Your task to perform on an android device: all mails in gmail Image 0: 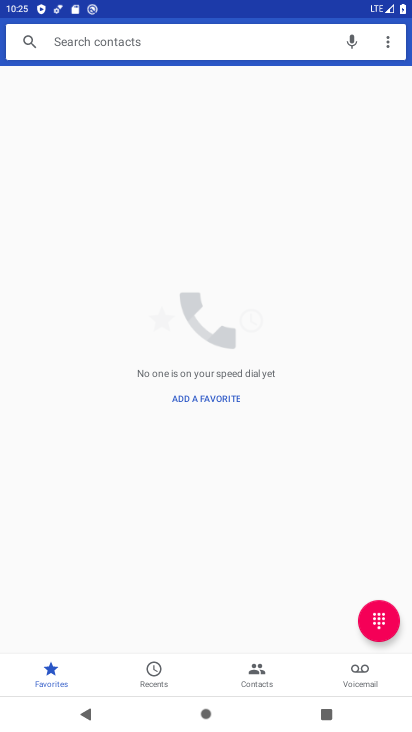
Step 0: press home button
Your task to perform on an android device: all mails in gmail Image 1: 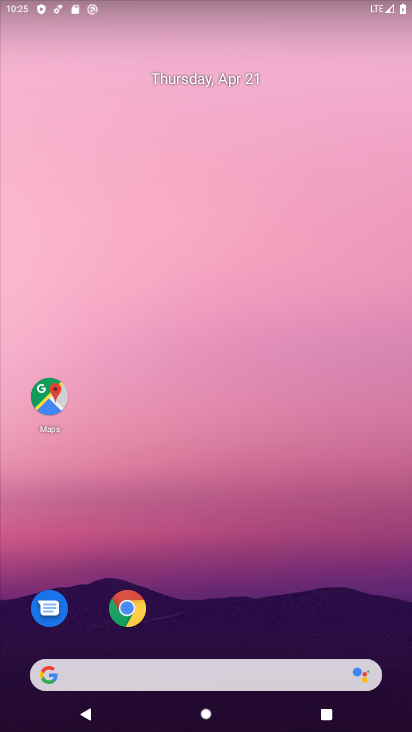
Step 1: drag from (232, 494) to (271, 158)
Your task to perform on an android device: all mails in gmail Image 2: 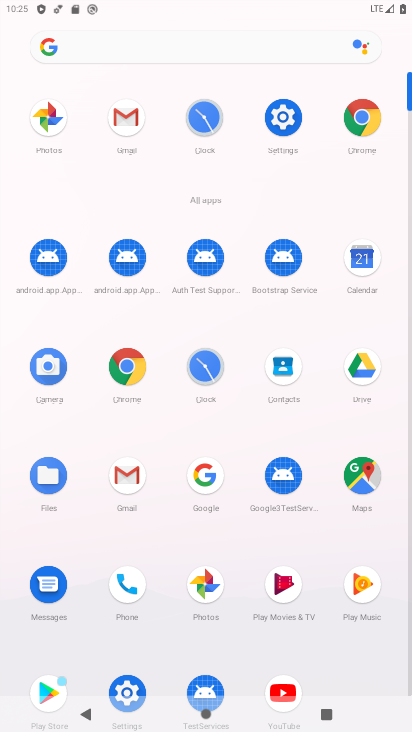
Step 2: click (131, 479)
Your task to perform on an android device: all mails in gmail Image 3: 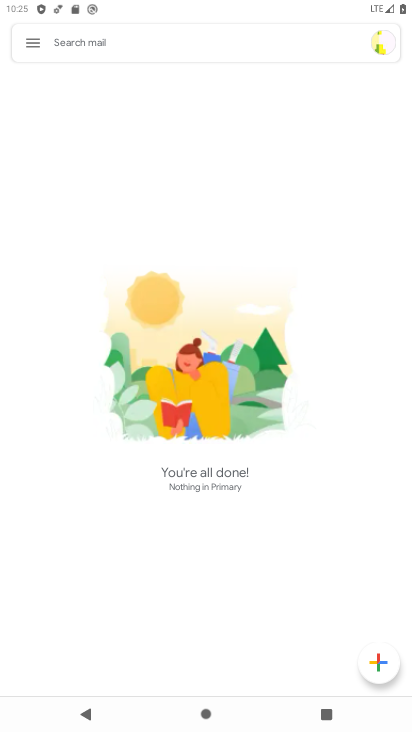
Step 3: click (34, 42)
Your task to perform on an android device: all mails in gmail Image 4: 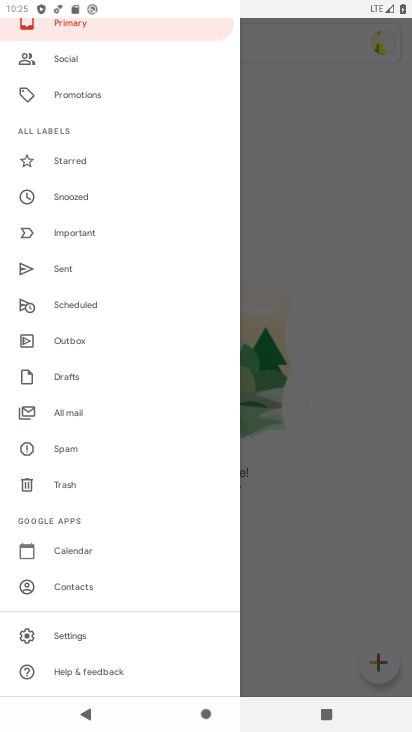
Step 4: click (61, 413)
Your task to perform on an android device: all mails in gmail Image 5: 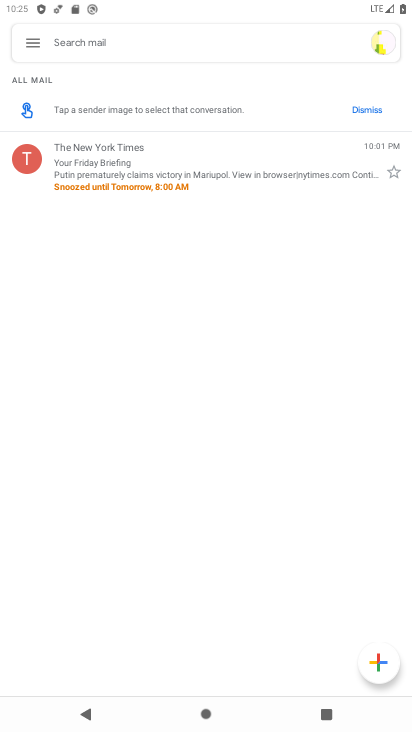
Step 5: task complete